Your task to perform on an android device: What's on my calendar tomorrow? Image 0: 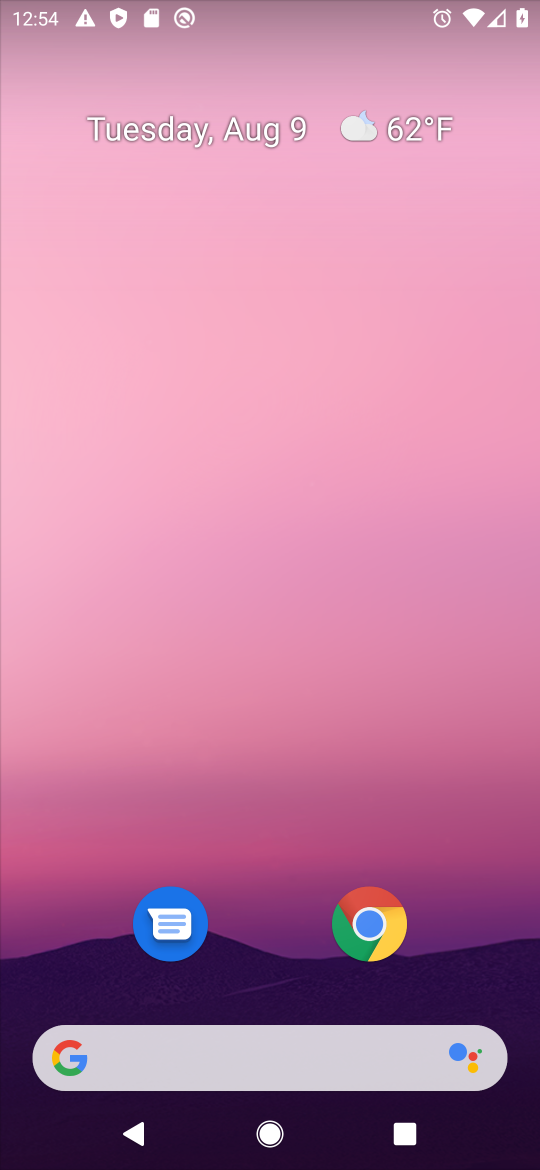
Step 0: drag from (321, 1019) to (151, 113)
Your task to perform on an android device: What's on my calendar tomorrow? Image 1: 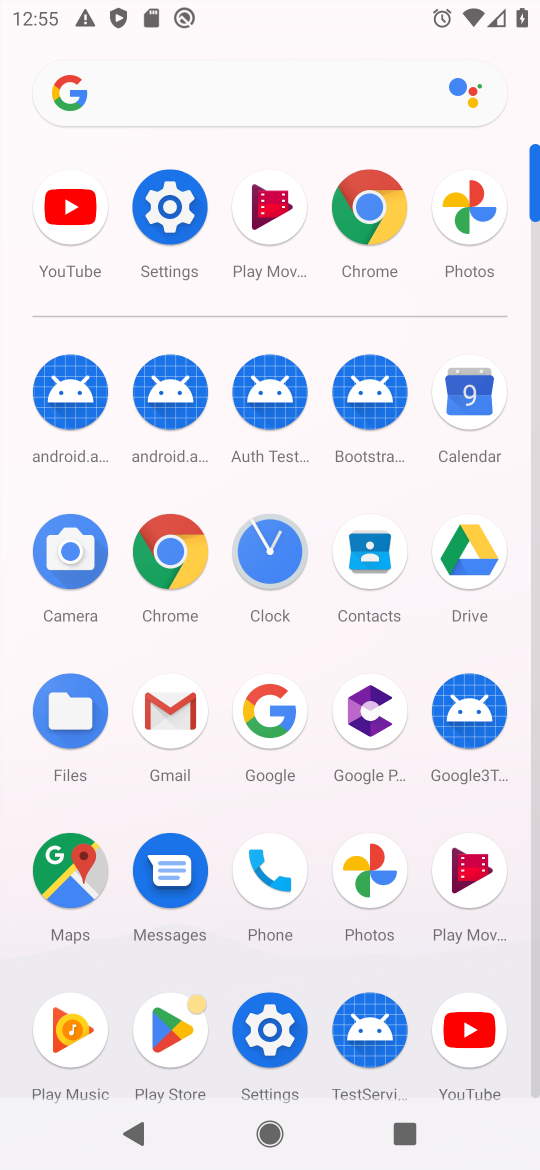
Step 1: click (460, 396)
Your task to perform on an android device: What's on my calendar tomorrow? Image 2: 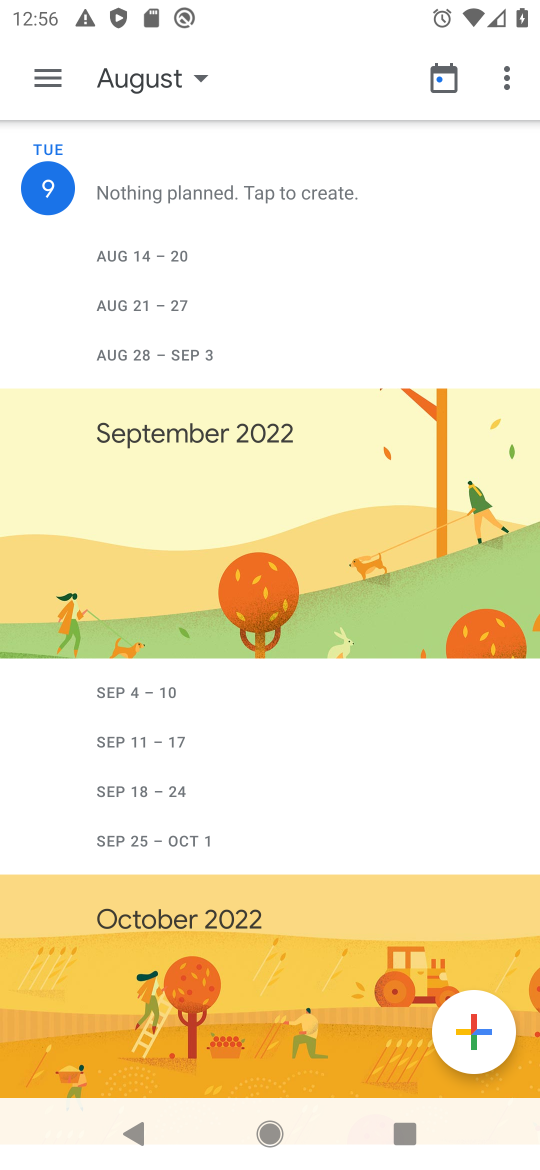
Step 2: task complete